Your task to perform on an android device: uninstall "AliExpress" Image 0: 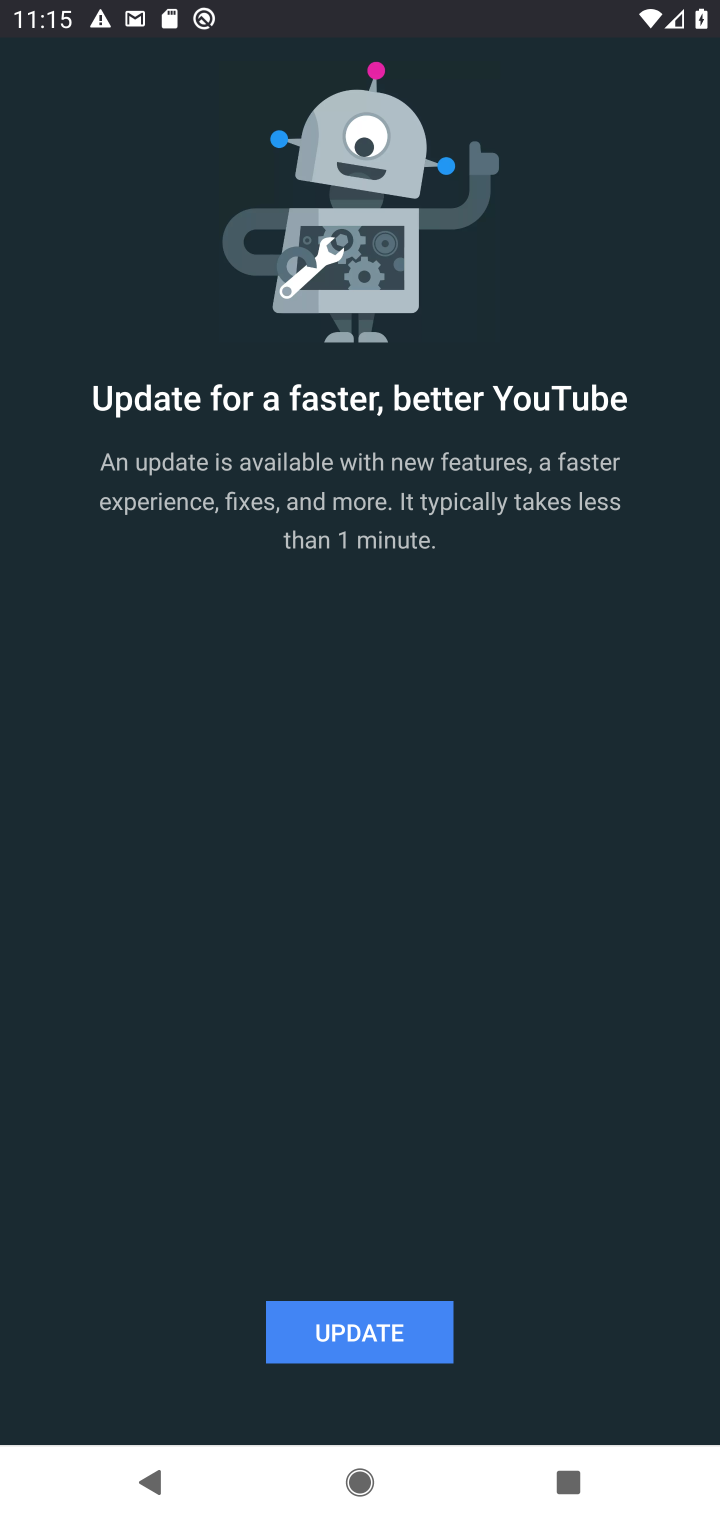
Step 0: press home button
Your task to perform on an android device: uninstall "AliExpress" Image 1: 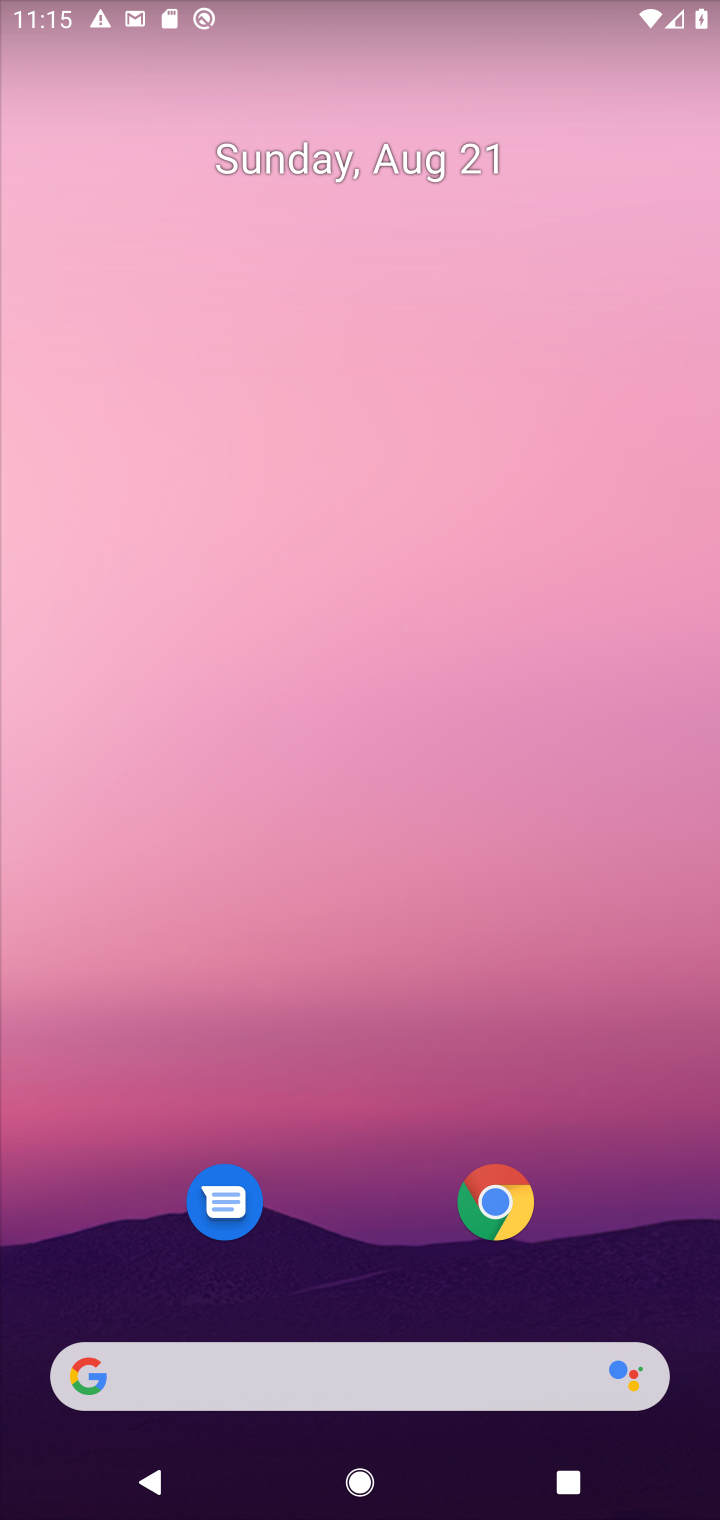
Step 1: drag from (337, 541) to (321, 76)
Your task to perform on an android device: uninstall "AliExpress" Image 2: 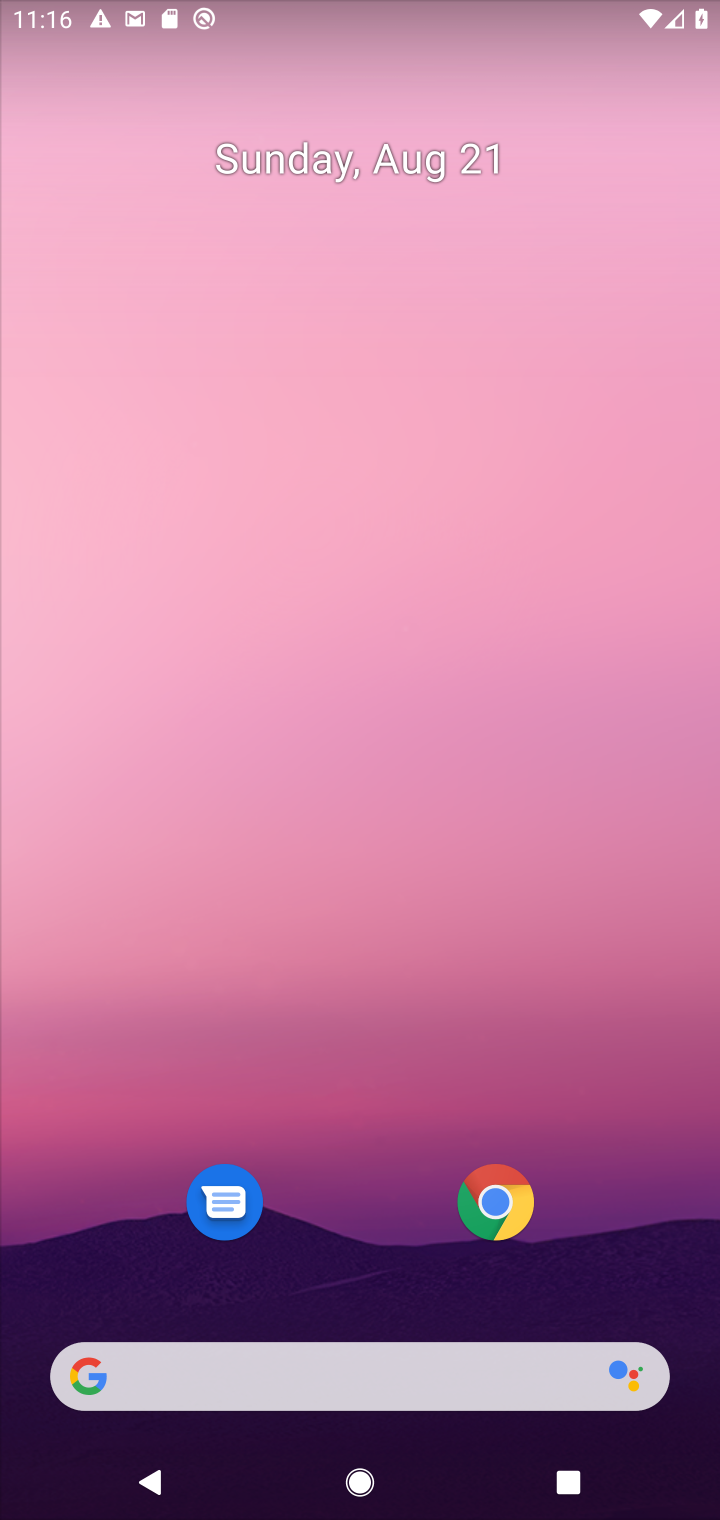
Step 2: drag from (322, 1309) to (262, 88)
Your task to perform on an android device: uninstall "AliExpress" Image 3: 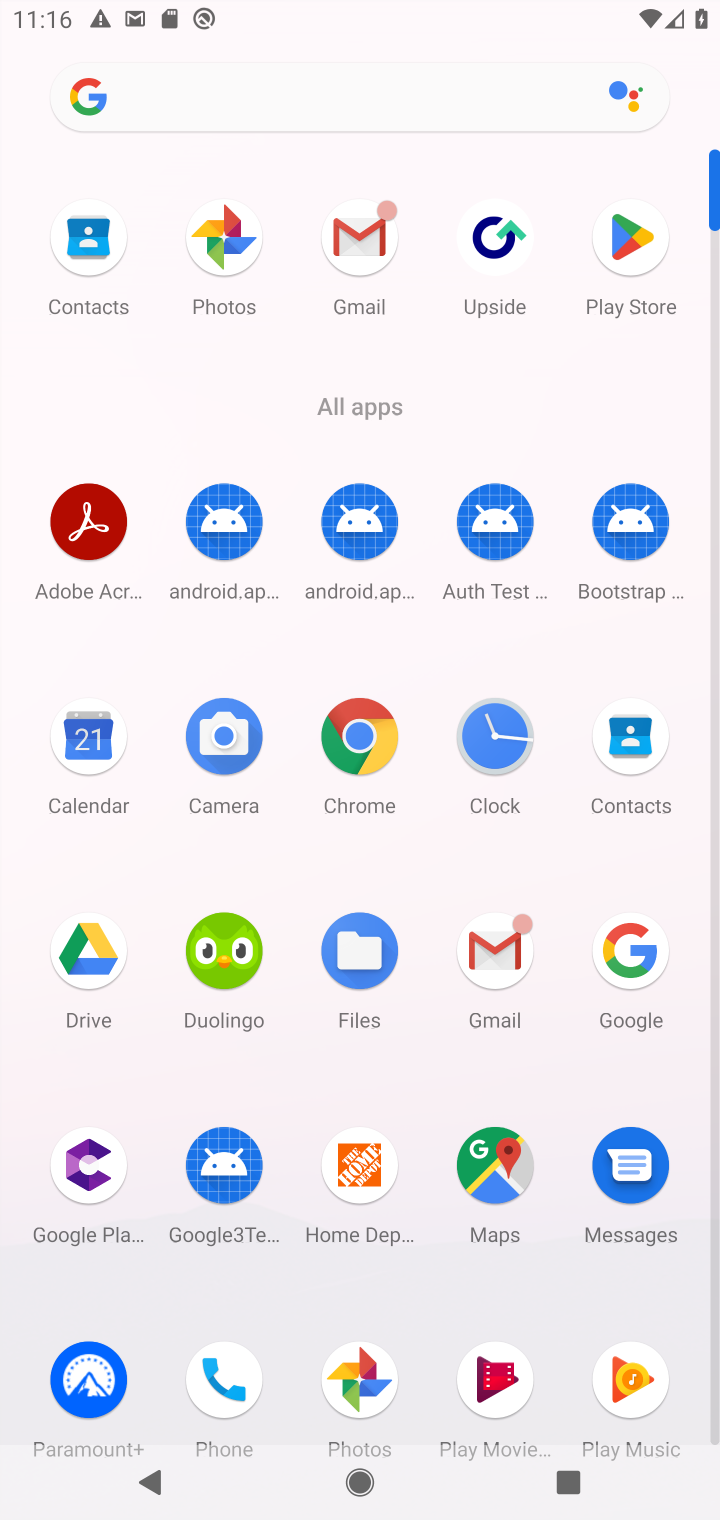
Step 3: click (630, 241)
Your task to perform on an android device: uninstall "AliExpress" Image 4: 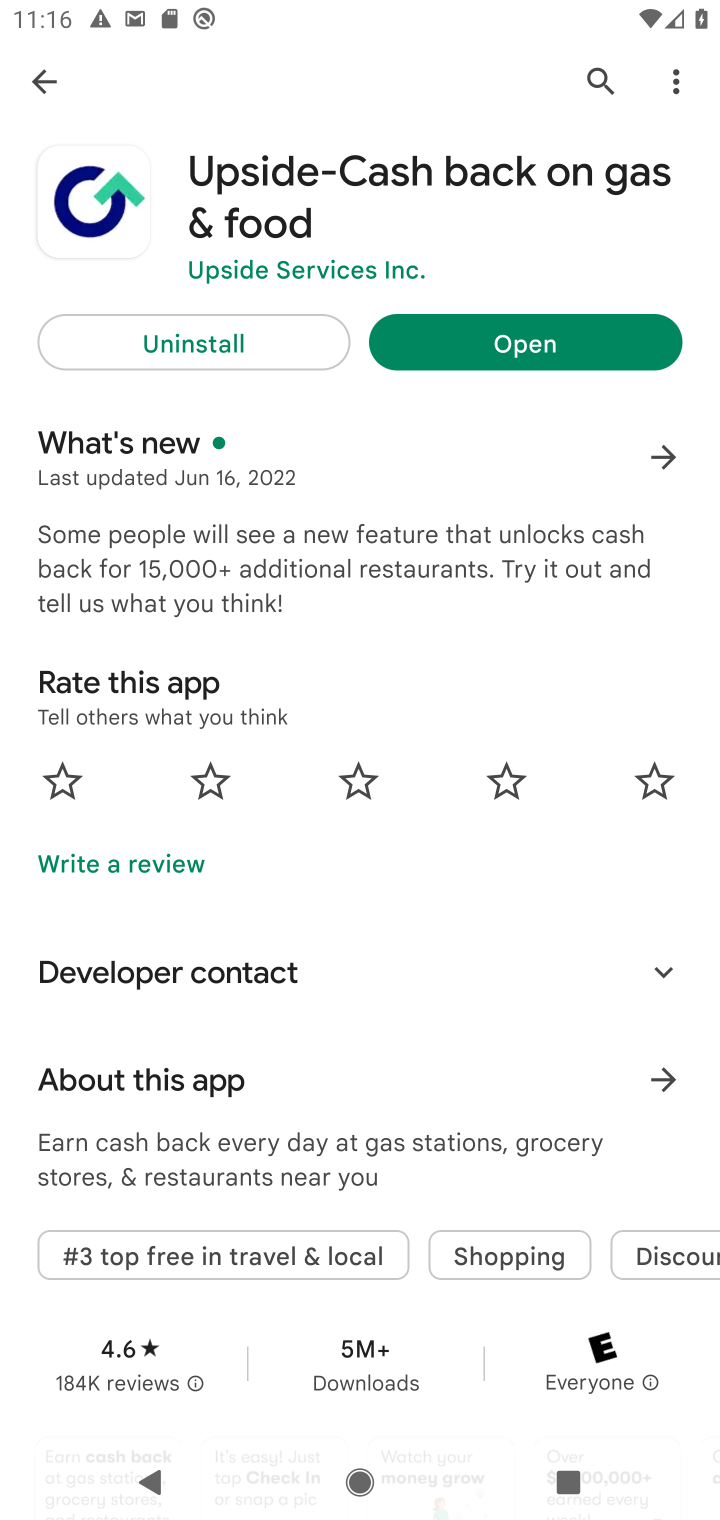
Step 4: click (592, 72)
Your task to perform on an android device: uninstall "AliExpress" Image 5: 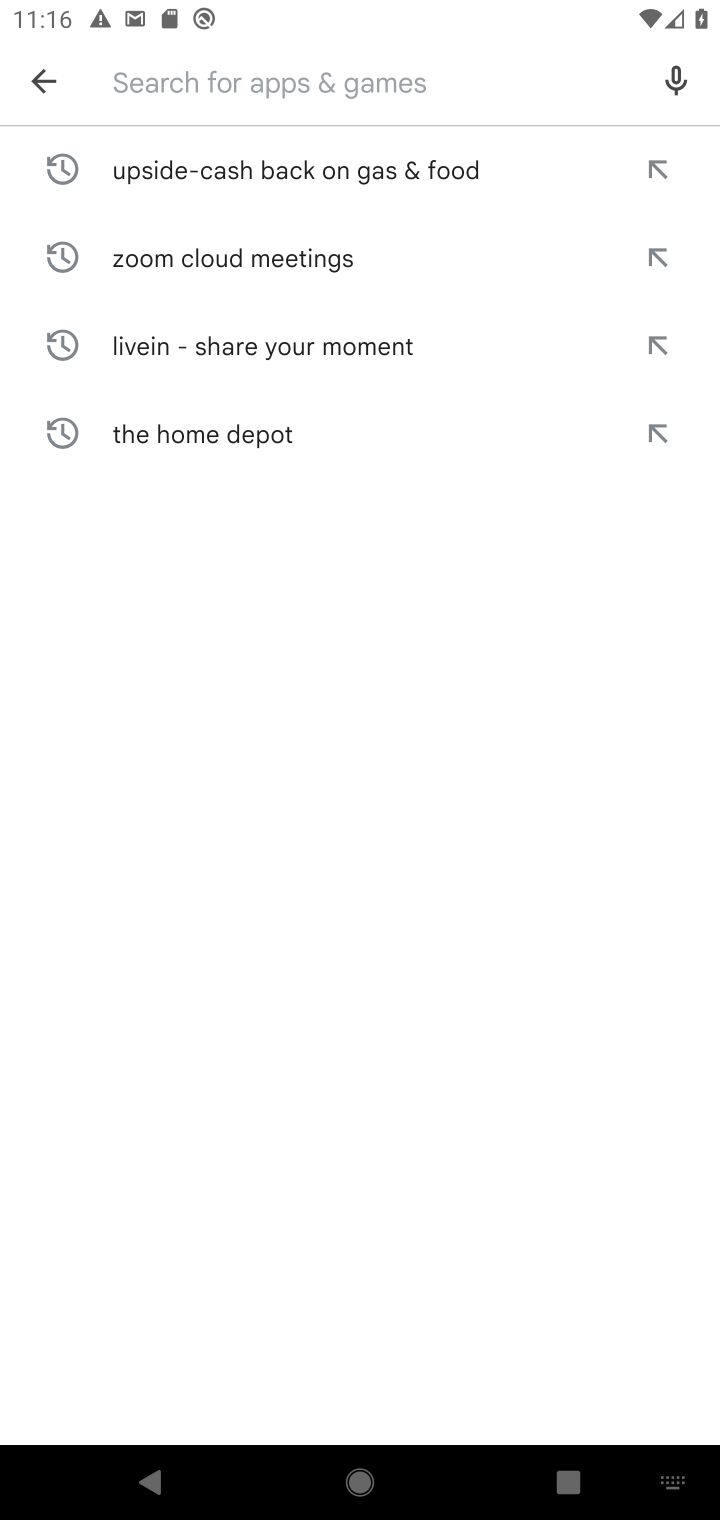
Step 5: type "AliExpress"
Your task to perform on an android device: uninstall "AliExpress" Image 6: 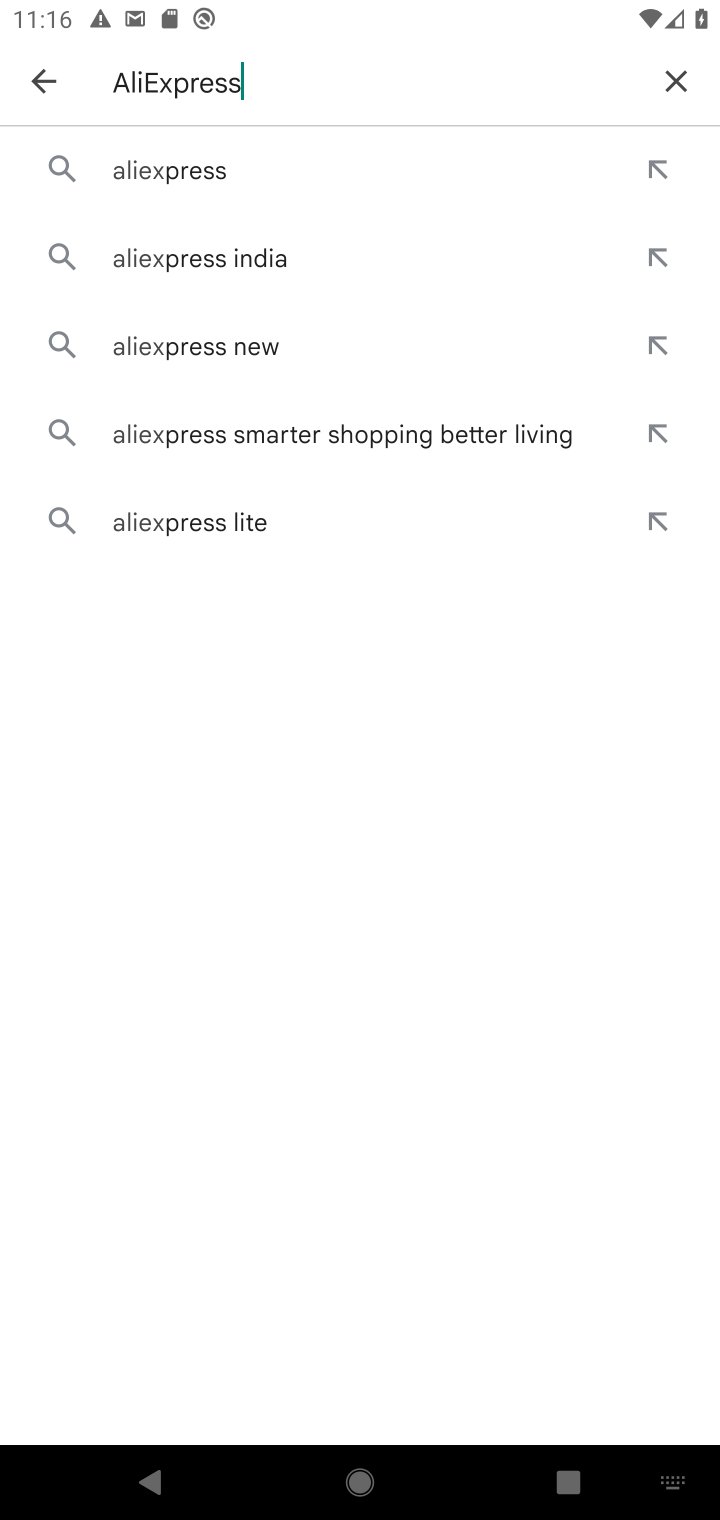
Step 6: type ""
Your task to perform on an android device: uninstall "AliExpress" Image 7: 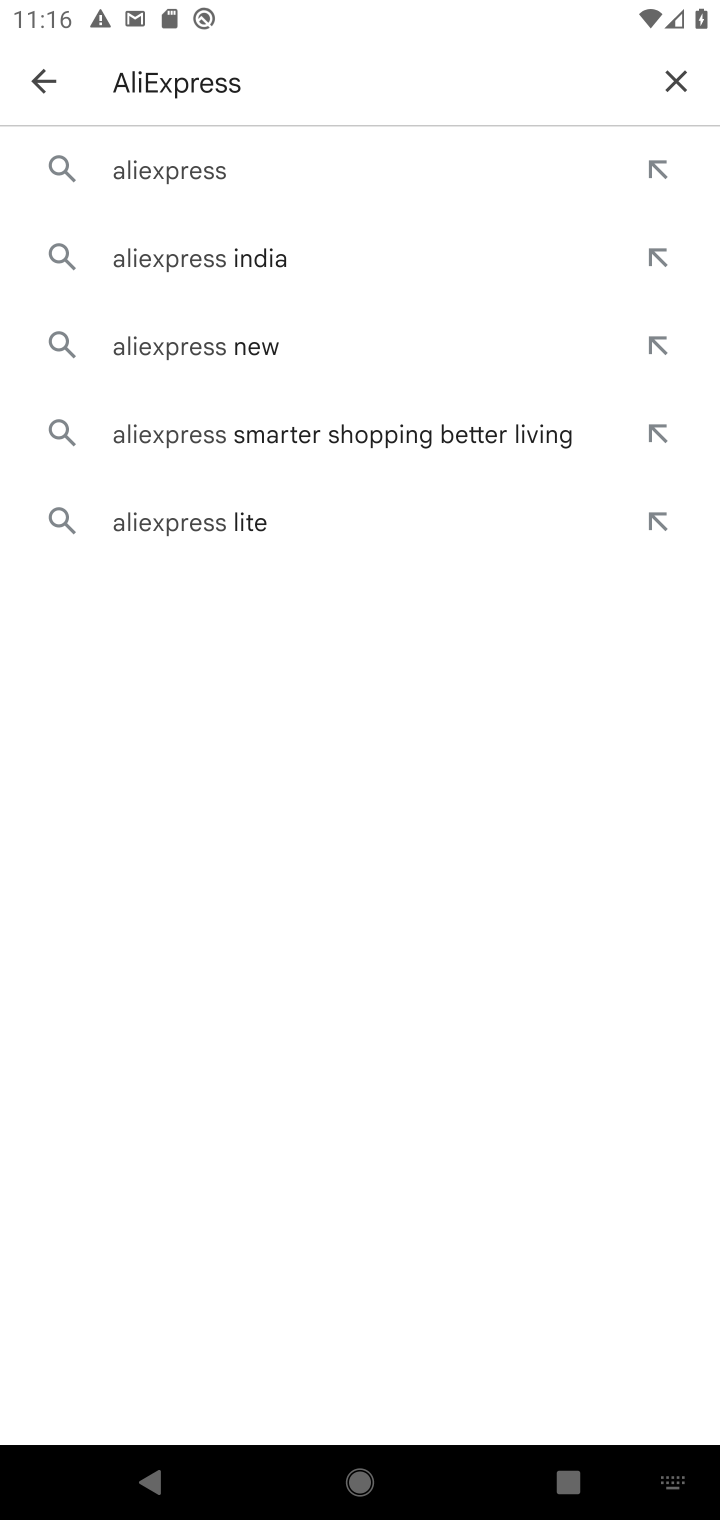
Step 7: click (190, 163)
Your task to perform on an android device: uninstall "AliExpress" Image 8: 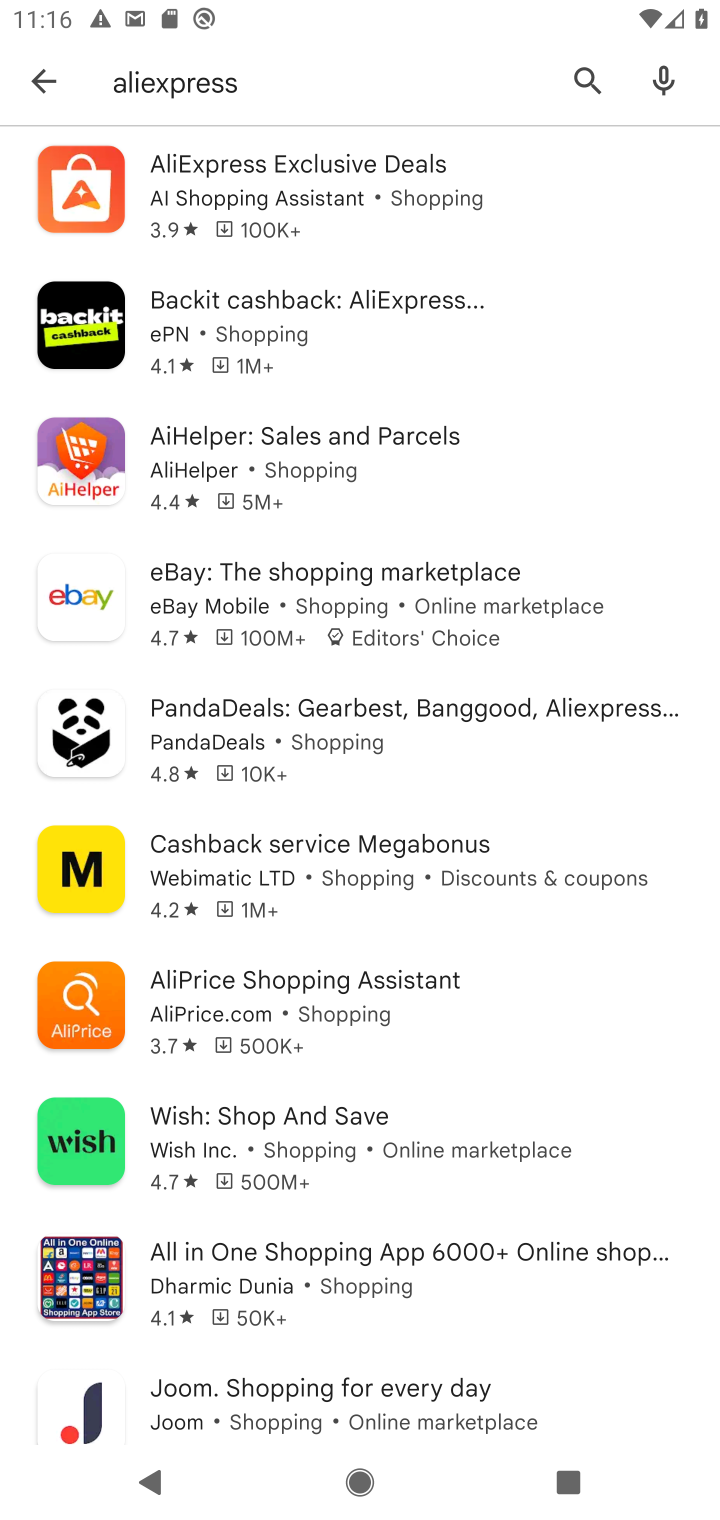
Step 8: click (190, 163)
Your task to perform on an android device: uninstall "AliExpress" Image 9: 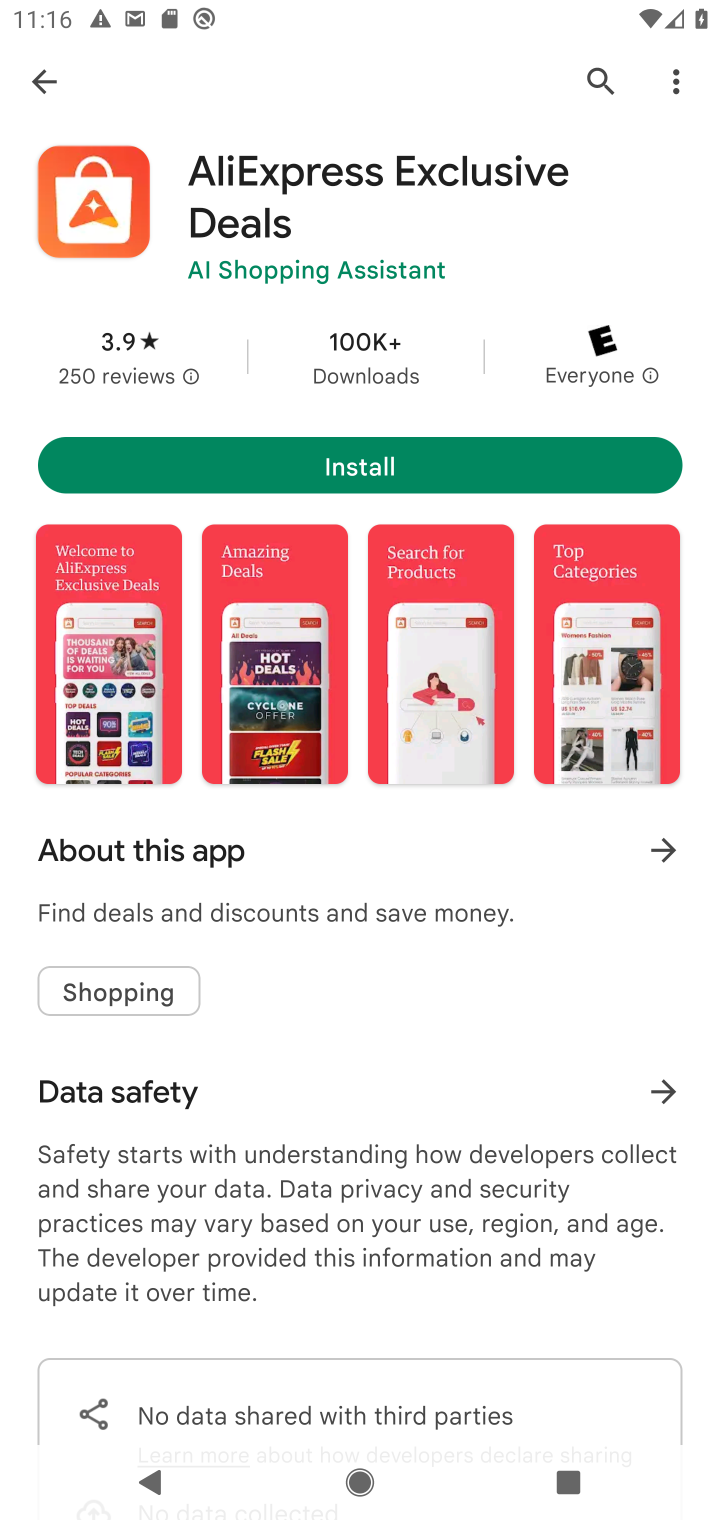
Step 9: task complete